Your task to perform on an android device: Open my contact list Image 0: 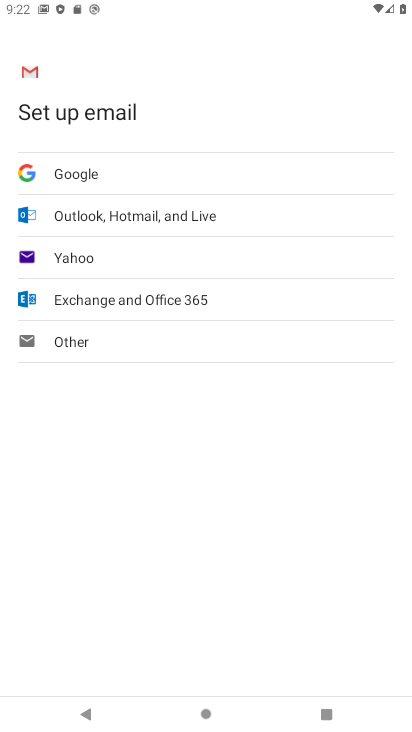
Step 0: press home button
Your task to perform on an android device: Open my contact list Image 1: 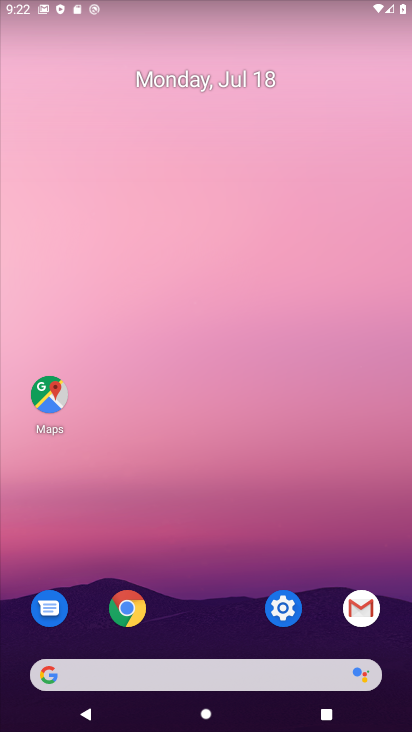
Step 1: drag from (238, 703) to (269, 165)
Your task to perform on an android device: Open my contact list Image 2: 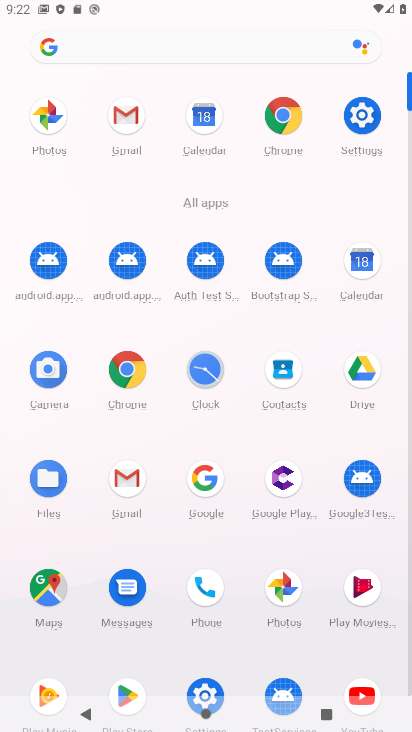
Step 2: click (202, 587)
Your task to perform on an android device: Open my contact list Image 3: 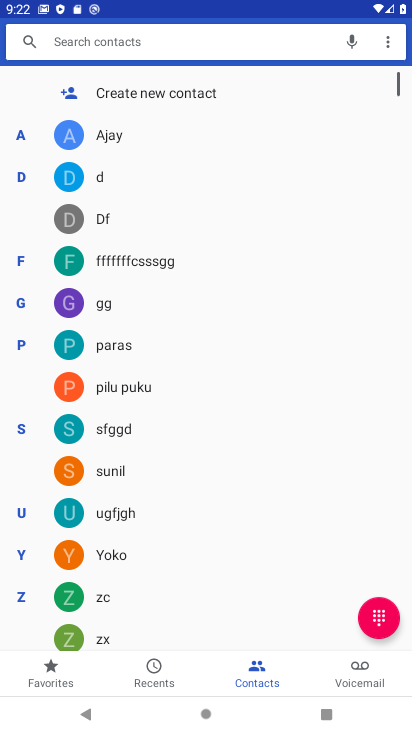
Step 3: task complete